Your task to perform on an android device: Go to notification settings Image 0: 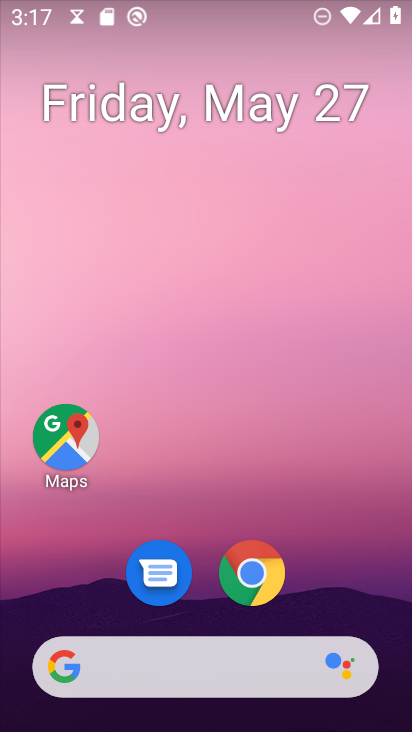
Step 0: drag from (326, 595) to (330, 25)
Your task to perform on an android device: Go to notification settings Image 1: 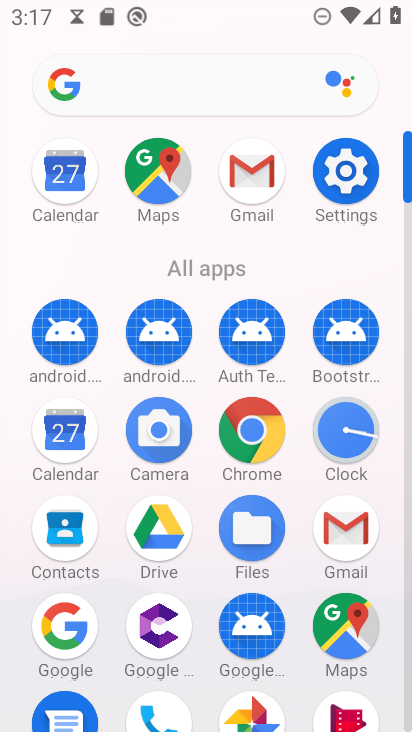
Step 1: click (346, 173)
Your task to perform on an android device: Go to notification settings Image 2: 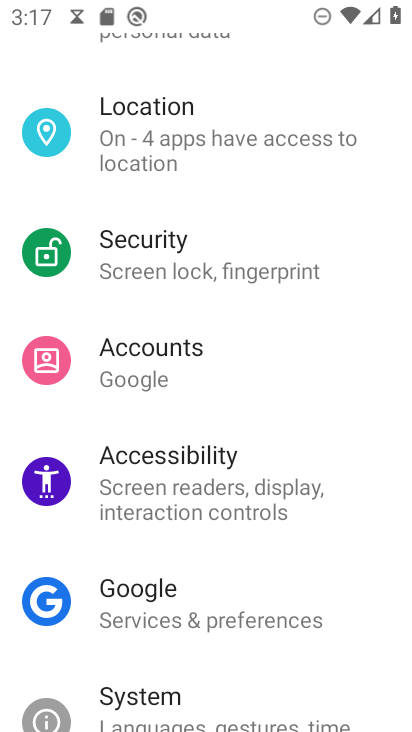
Step 2: drag from (239, 279) to (216, 716)
Your task to perform on an android device: Go to notification settings Image 3: 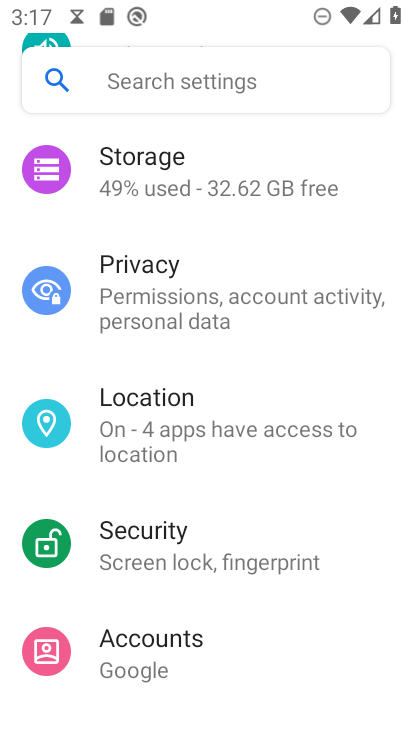
Step 3: drag from (263, 293) to (273, 709)
Your task to perform on an android device: Go to notification settings Image 4: 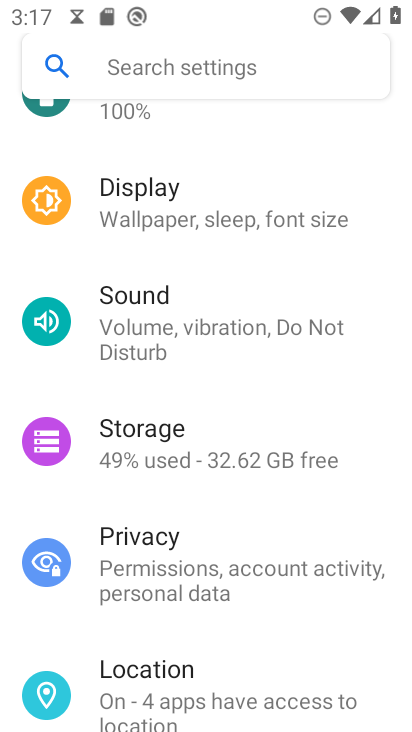
Step 4: drag from (256, 297) to (164, 730)
Your task to perform on an android device: Go to notification settings Image 5: 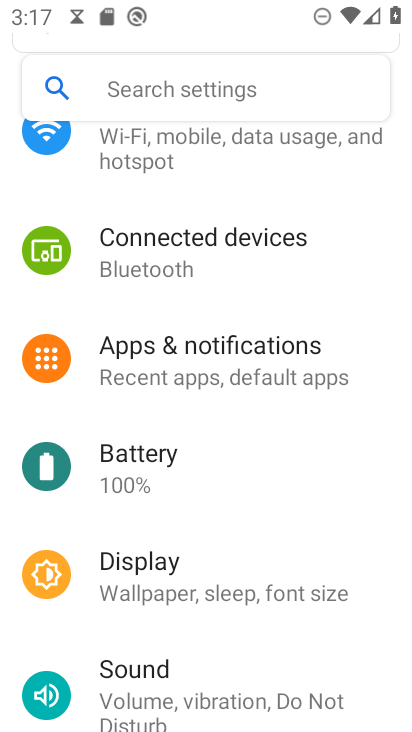
Step 5: click (169, 367)
Your task to perform on an android device: Go to notification settings Image 6: 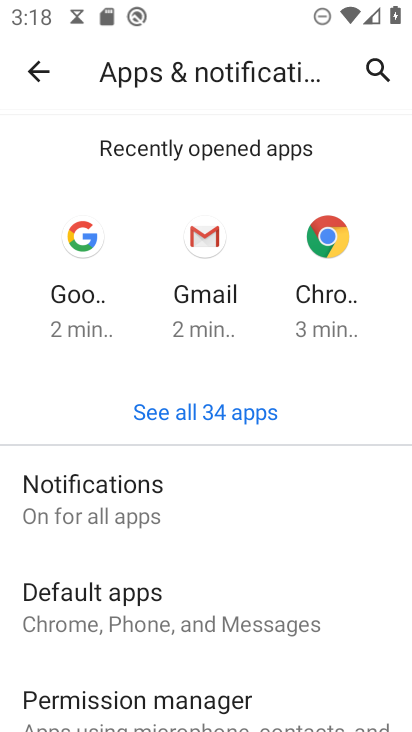
Step 6: click (221, 495)
Your task to perform on an android device: Go to notification settings Image 7: 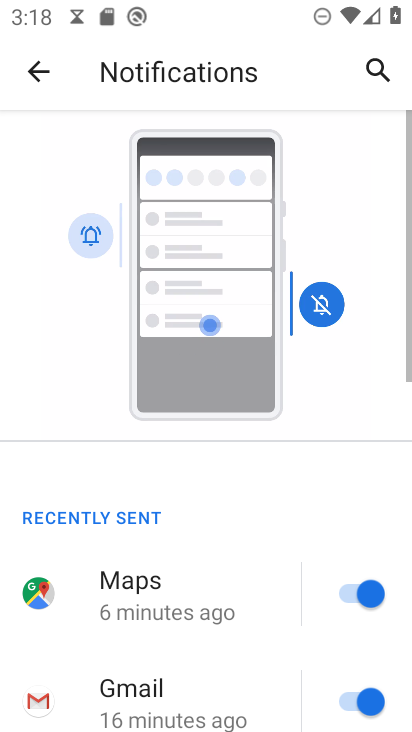
Step 7: task complete